Your task to perform on an android device: turn notification dots on Image 0: 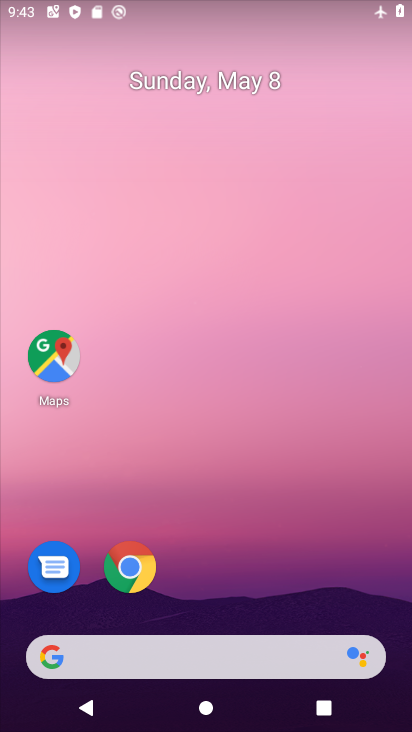
Step 0: drag from (163, 638) to (123, 219)
Your task to perform on an android device: turn notification dots on Image 1: 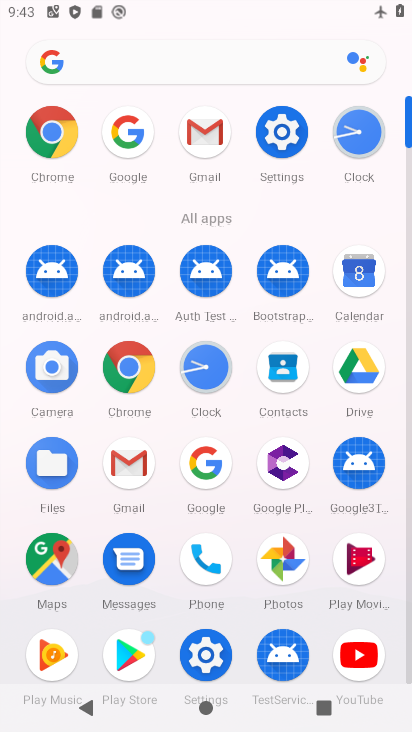
Step 1: click (271, 137)
Your task to perform on an android device: turn notification dots on Image 2: 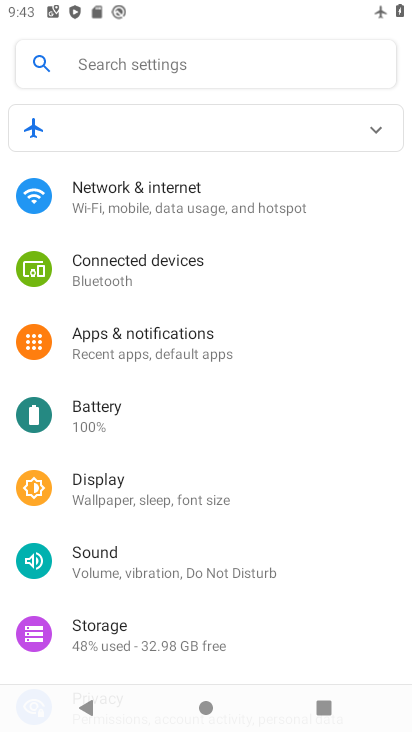
Step 2: click (122, 330)
Your task to perform on an android device: turn notification dots on Image 3: 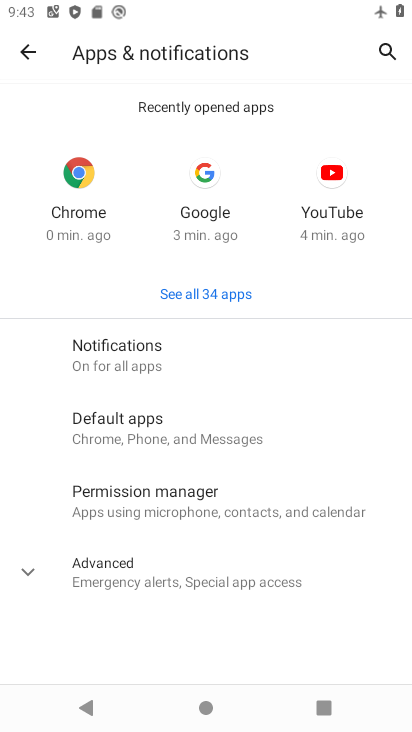
Step 3: click (117, 566)
Your task to perform on an android device: turn notification dots on Image 4: 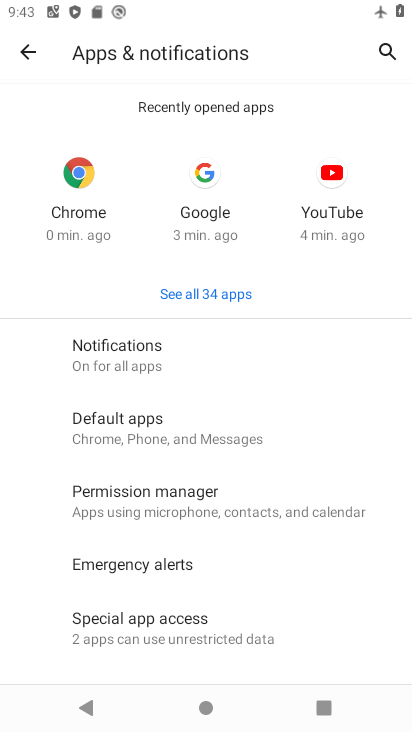
Step 4: click (129, 332)
Your task to perform on an android device: turn notification dots on Image 5: 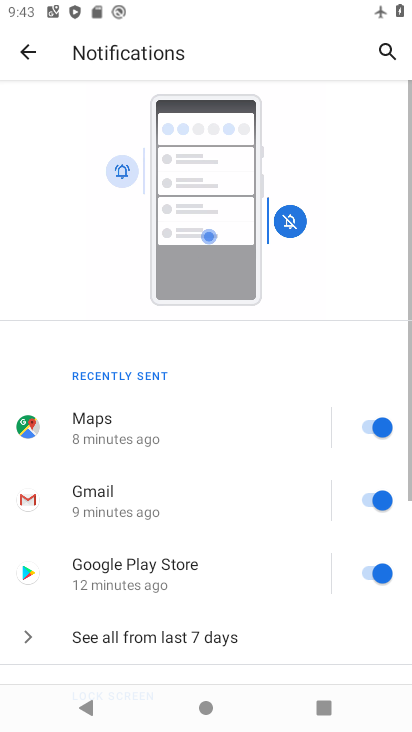
Step 5: drag from (163, 628) to (202, 290)
Your task to perform on an android device: turn notification dots on Image 6: 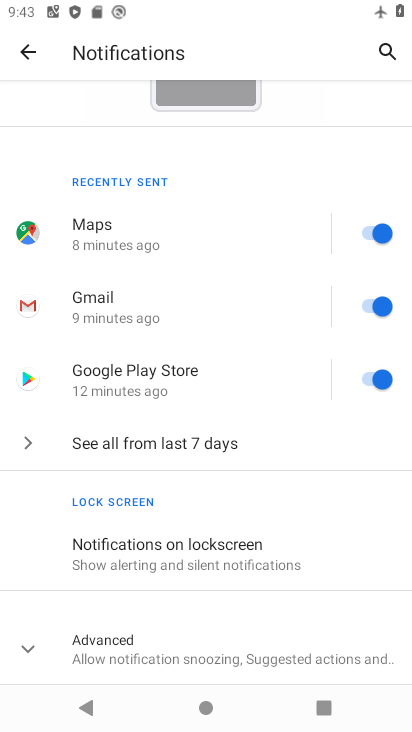
Step 6: click (106, 647)
Your task to perform on an android device: turn notification dots on Image 7: 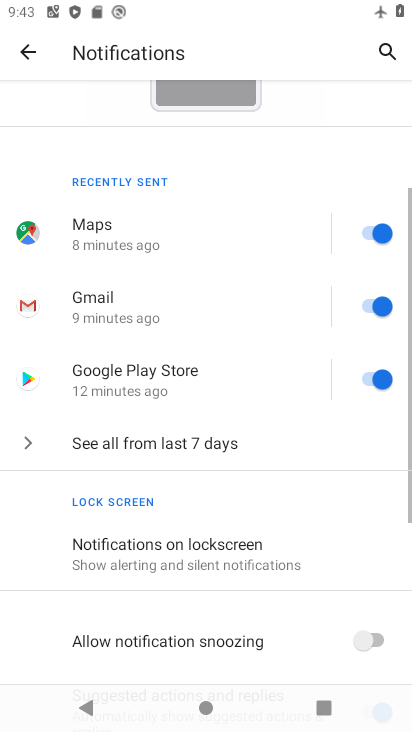
Step 7: task complete